Your task to perform on an android device: Open notification settings Image 0: 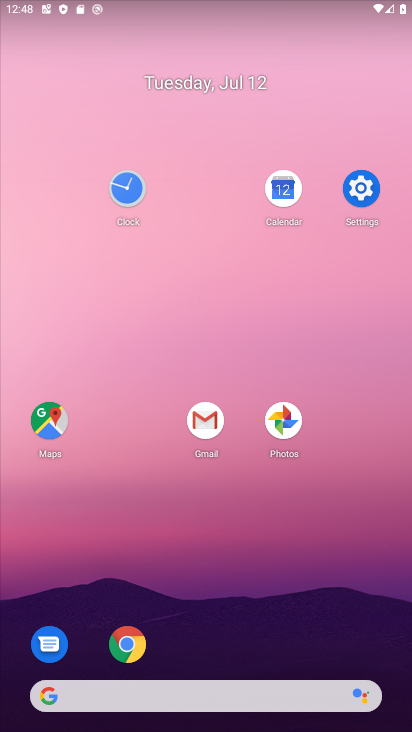
Step 0: click (359, 179)
Your task to perform on an android device: Open notification settings Image 1: 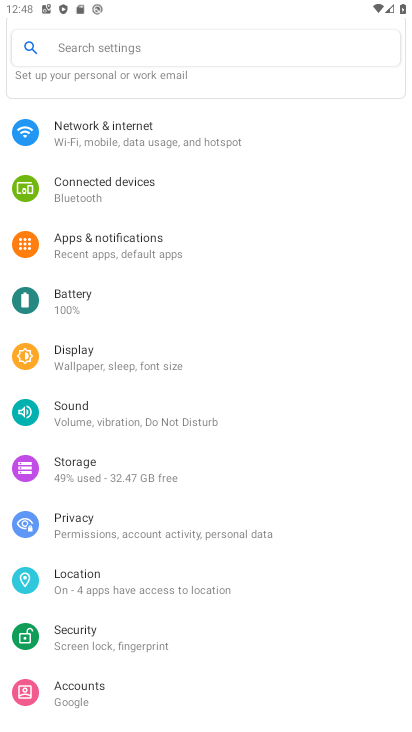
Step 1: click (150, 233)
Your task to perform on an android device: Open notification settings Image 2: 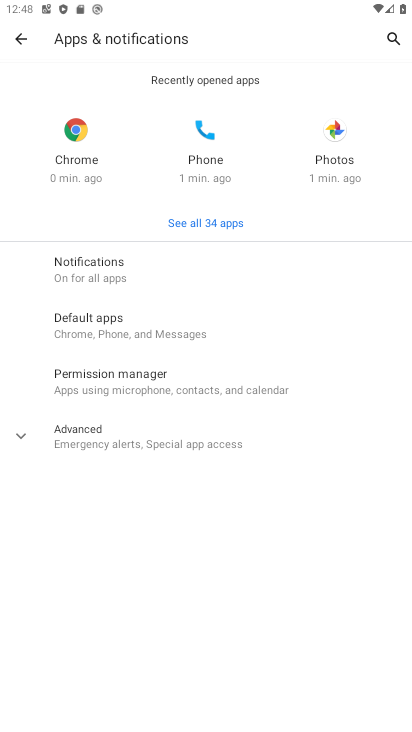
Step 2: task complete